Your task to perform on an android device: turn on improve location accuracy Image 0: 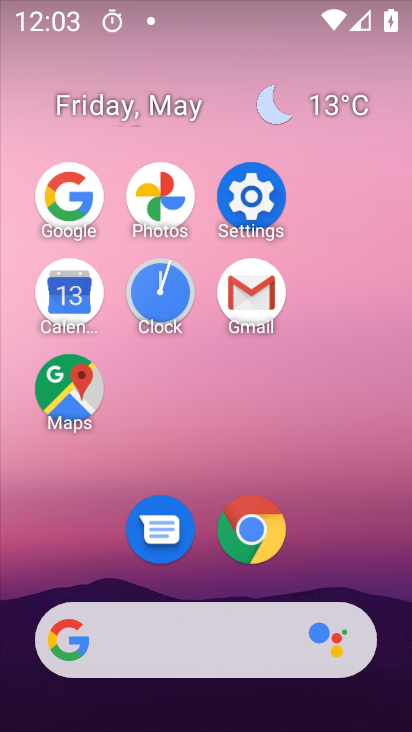
Step 0: click (243, 224)
Your task to perform on an android device: turn on improve location accuracy Image 1: 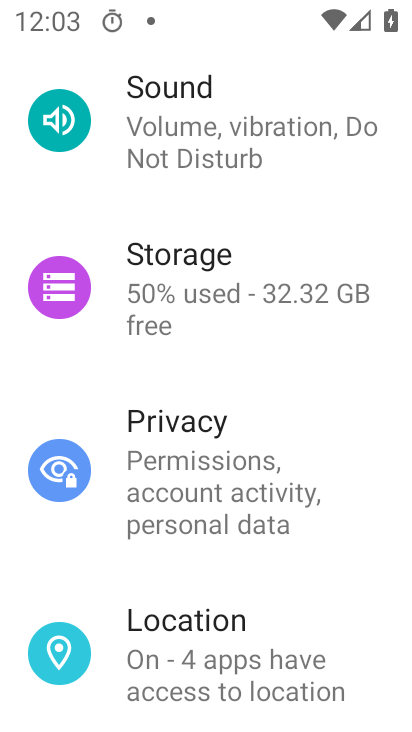
Step 1: click (257, 656)
Your task to perform on an android device: turn on improve location accuracy Image 2: 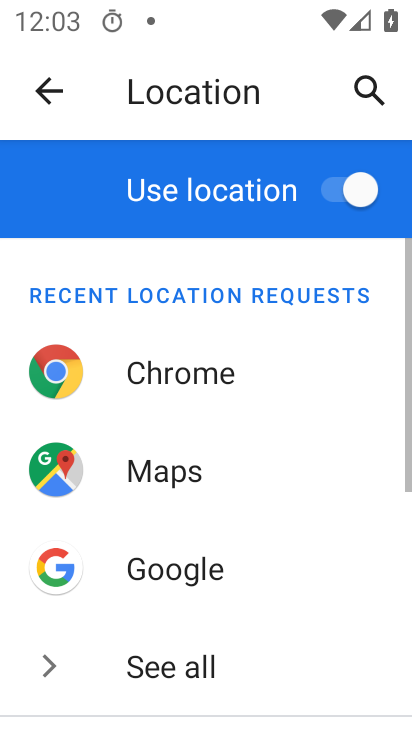
Step 2: drag from (257, 656) to (285, 167)
Your task to perform on an android device: turn on improve location accuracy Image 3: 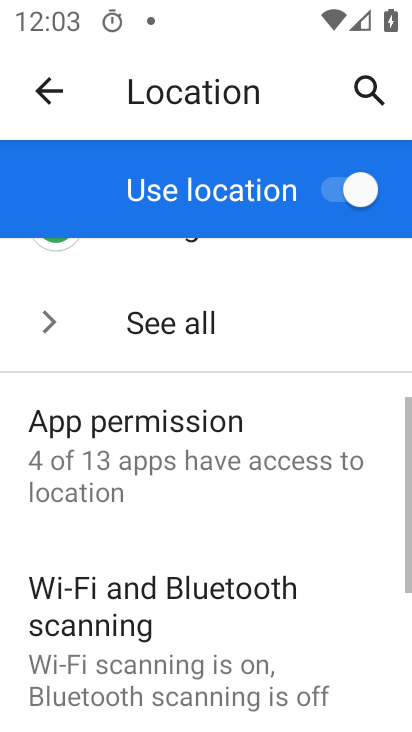
Step 3: drag from (245, 635) to (257, 196)
Your task to perform on an android device: turn on improve location accuracy Image 4: 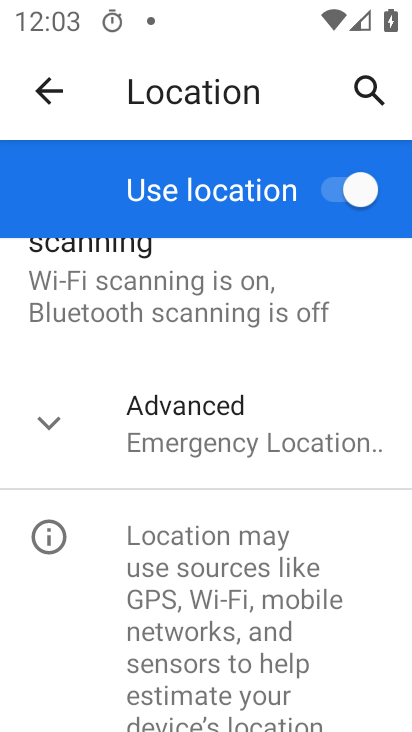
Step 4: click (259, 429)
Your task to perform on an android device: turn on improve location accuracy Image 5: 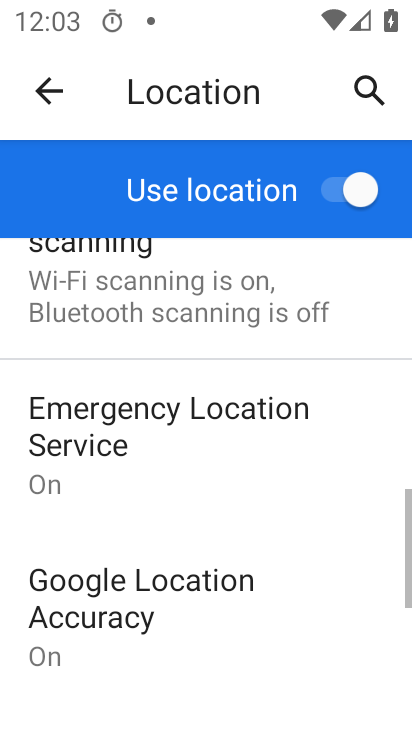
Step 5: drag from (286, 650) to (328, 319)
Your task to perform on an android device: turn on improve location accuracy Image 6: 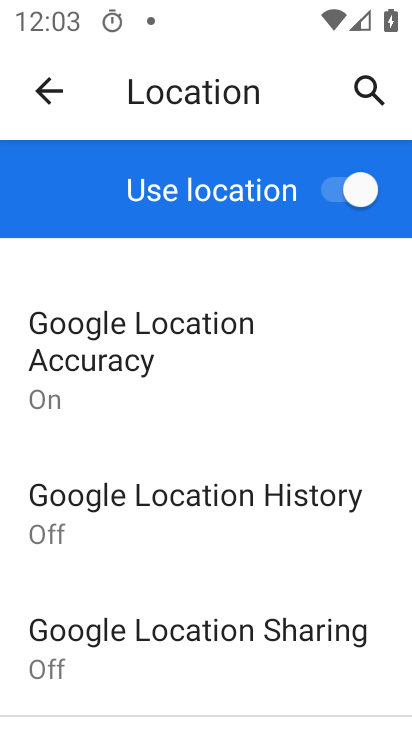
Step 6: click (172, 333)
Your task to perform on an android device: turn on improve location accuracy Image 7: 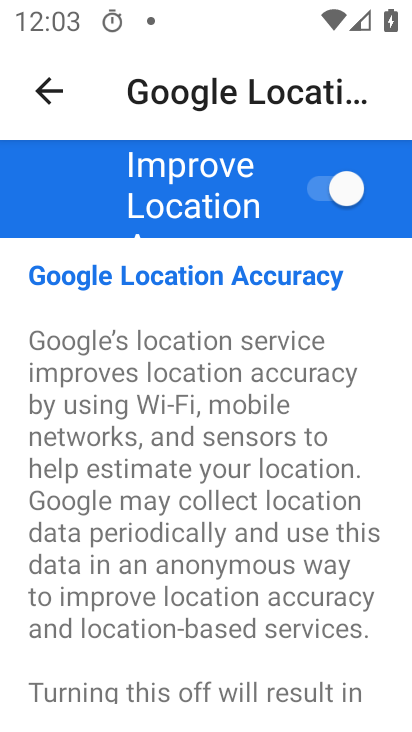
Step 7: click (340, 193)
Your task to perform on an android device: turn on improve location accuracy Image 8: 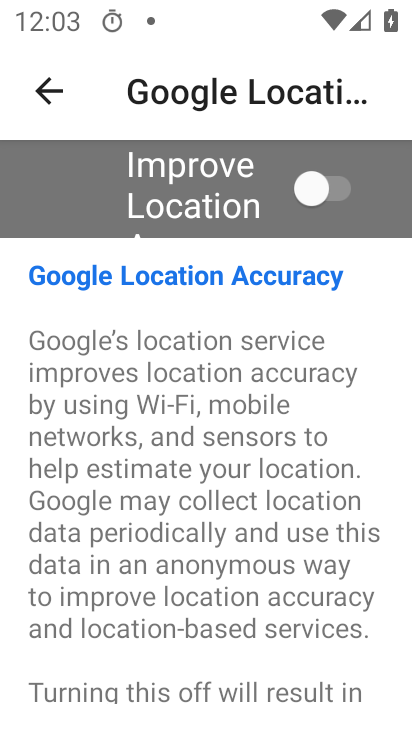
Step 8: click (340, 193)
Your task to perform on an android device: turn on improve location accuracy Image 9: 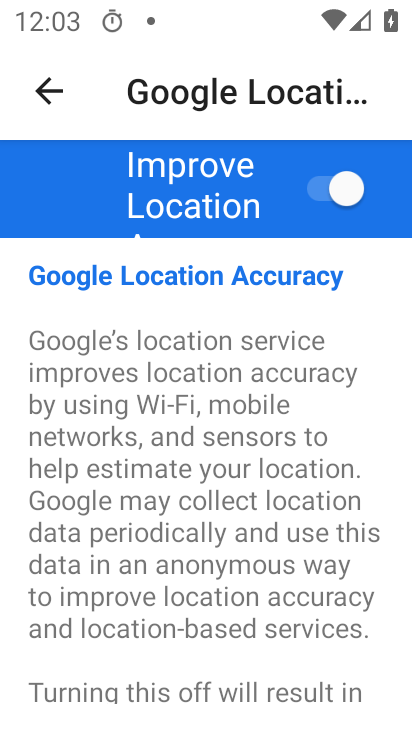
Step 9: task complete